Your task to perform on an android device: open chrome and create a bookmark for the current page Image 0: 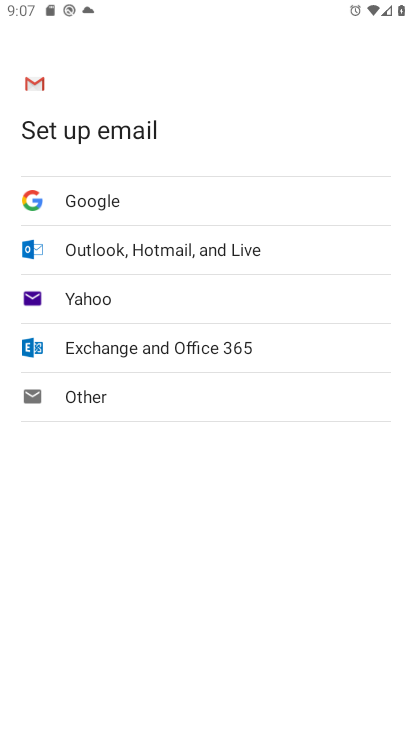
Step 0: click (214, 479)
Your task to perform on an android device: open chrome and create a bookmark for the current page Image 1: 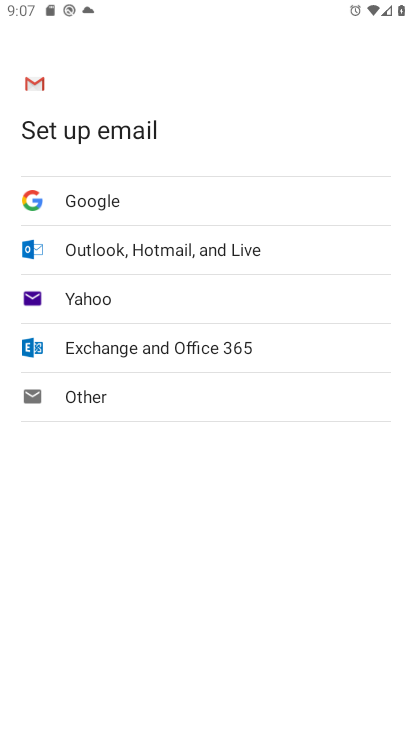
Step 1: press home button
Your task to perform on an android device: open chrome and create a bookmark for the current page Image 2: 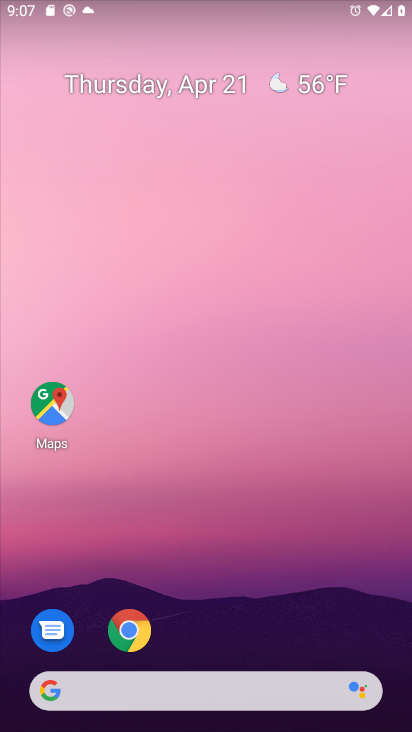
Step 2: click (134, 625)
Your task to perform on an android device: open chrome and create a bookmark for the current page Image 3: 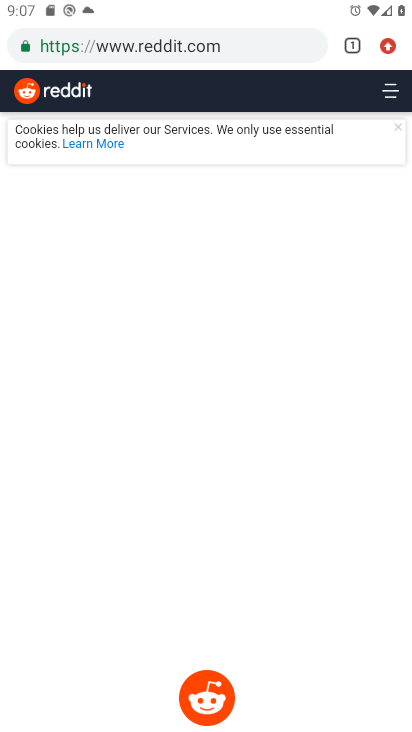
Step 3: click (381, 47)
Your task to perform on an android device: open chrome and create a bookmark for the current page Image 4: 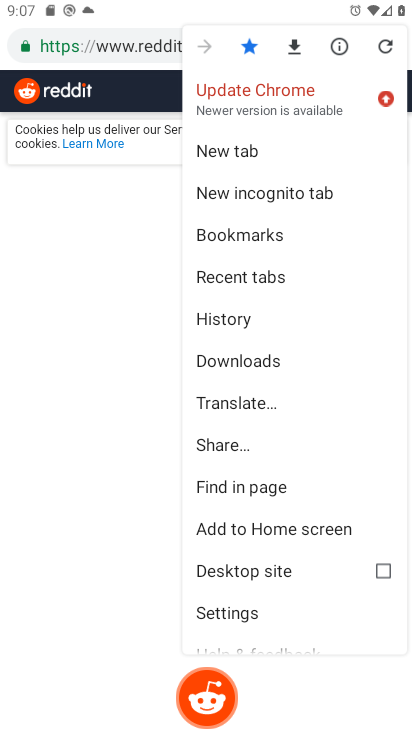
Step 4: click (89, 202)
Your task to perform on an android device: open chrome and create a bookmark for the current page Image 5: 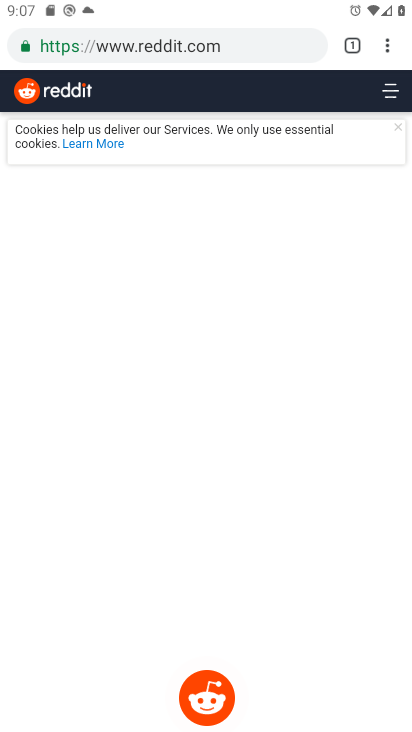
Step 5: click (389, 52)
Your task to perform on an android device: open chrome and create a bookmark for the current page Image 6: 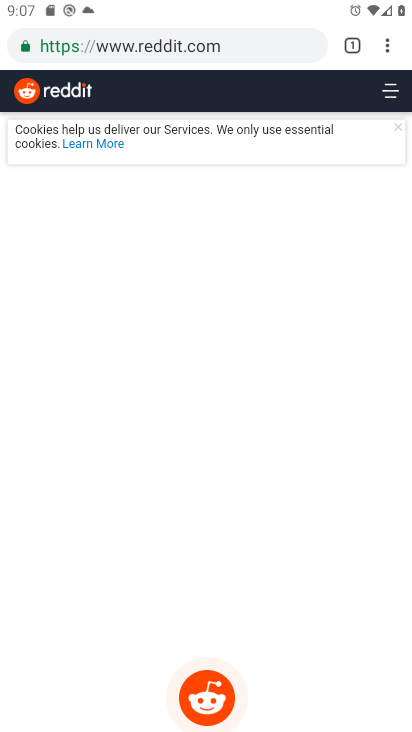
Step 6: task complete